Your task to perform on an android device: turn off smart reply in the gmail app Image 0: 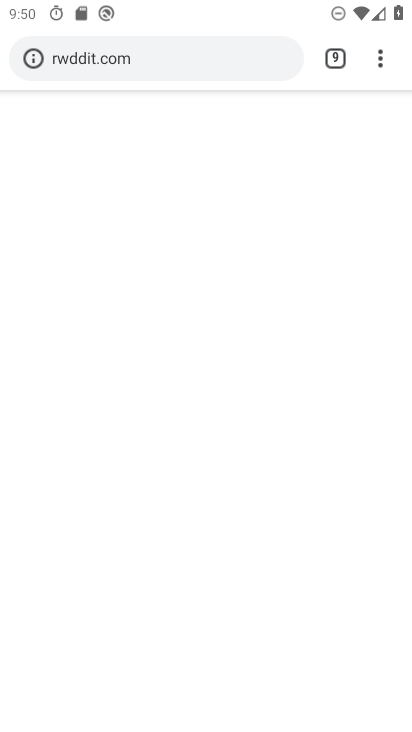
Step 0: press home button
Your task to perform on an android device: turn off smart reply in the gmail app Image 1: 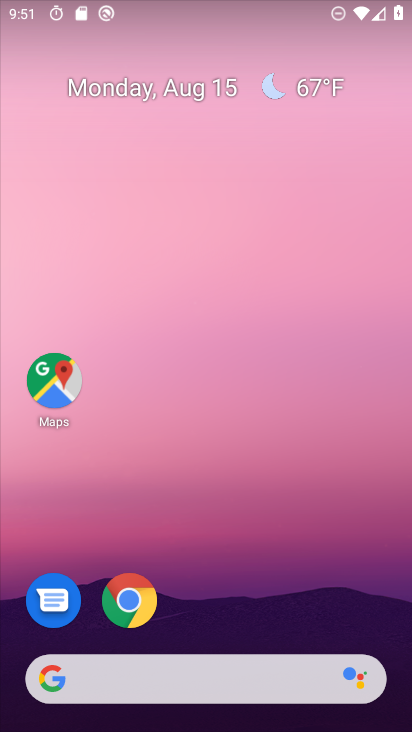
Step 1: drag from (218, 637) to (217, 120)
Your task to perform on an android device: turn off smart reply in the gmail app Image 2: 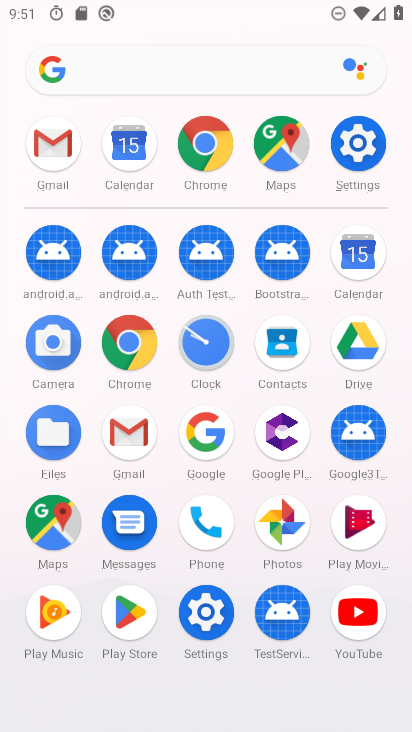
Step 2: click (136, 427)
Your task to perform on an android device: turn off smart reply in the gmail app Image 3: 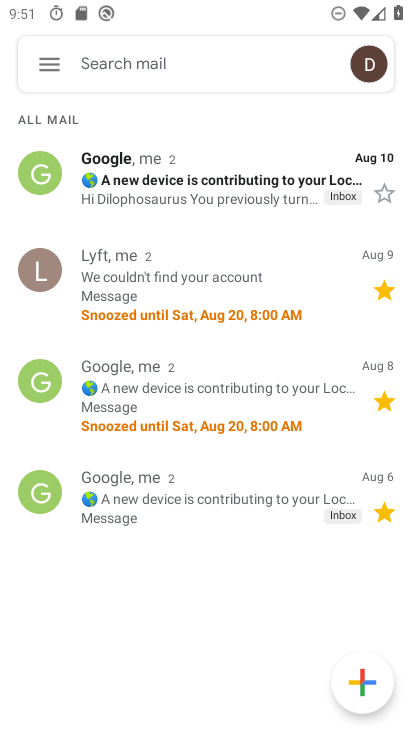
Step 3: click (48, 68)
Your task to perform on an android device: turn off smart reply in the gmail app Image 4: 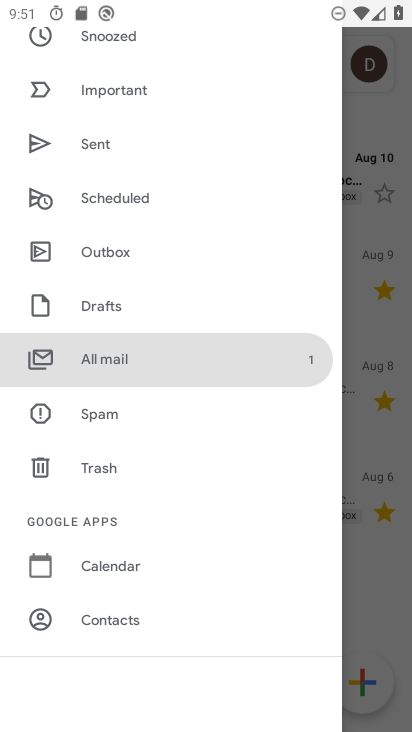
Step 4: drag from (114, 600) to (142, 234)
Your task to perform on an android device: turn off smart reply in the gmail app Image 5: 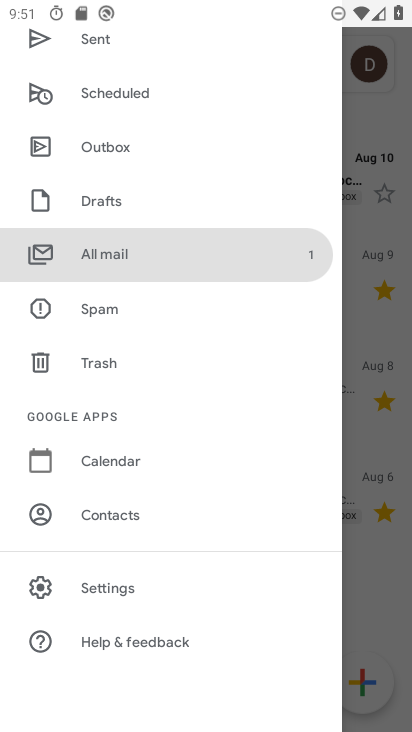
Step 5: click (114, 582)
Your task to perform on an android device: turn off smart reply in the gmail app Image 6: 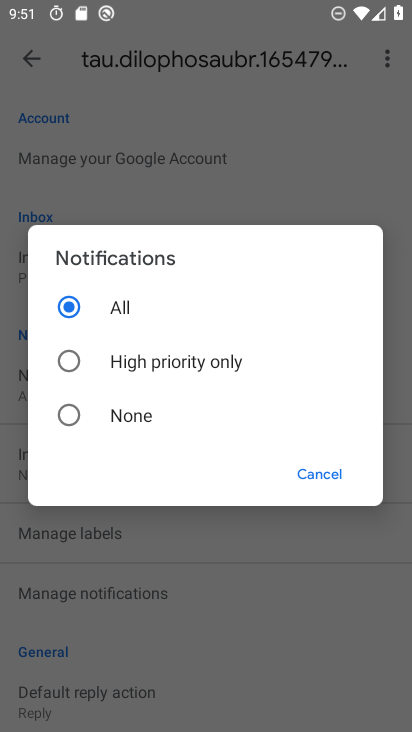
Step 6: click (321, 477)
Your task to perform on an android device: turn off smart reply in the gmail app Image 7: 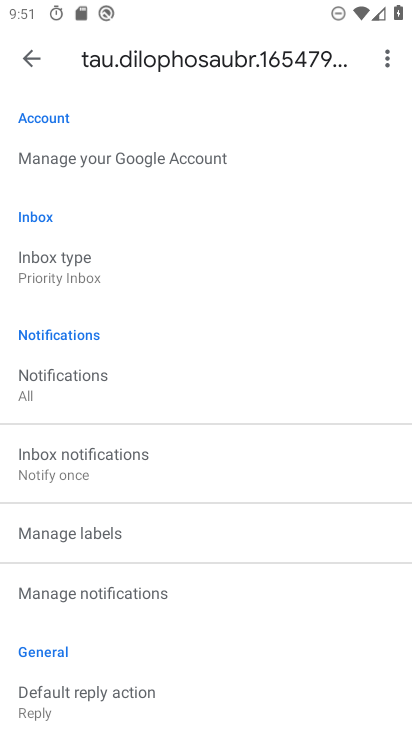
Step 7: task complete